Your task to perform on an android device: toggle airplane mode Image 0: 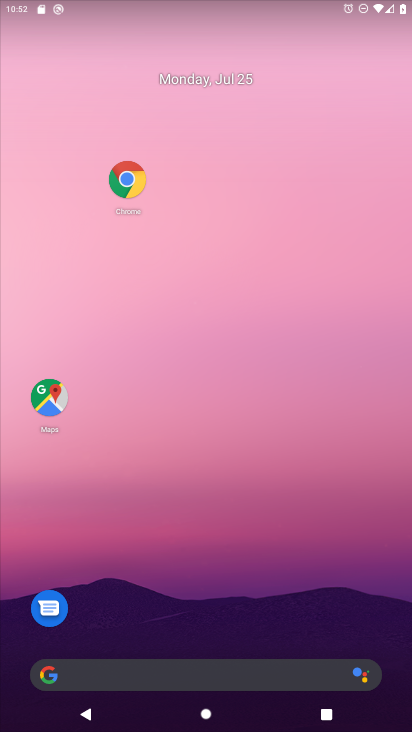
Step 0: drag from (154, 703) to (41, 722)
Your task to perform on an android device: toggle airplane mode Image 1: 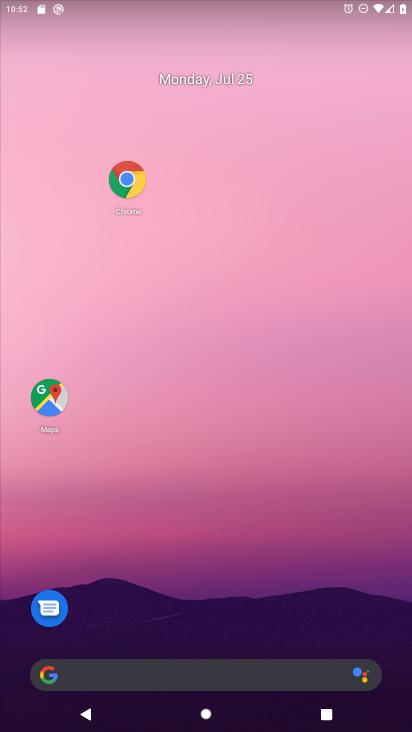
Step 1: drag from (141, 697) to (185, 94)
Your task to perform on an android device: toggle airplane mode Image 2: 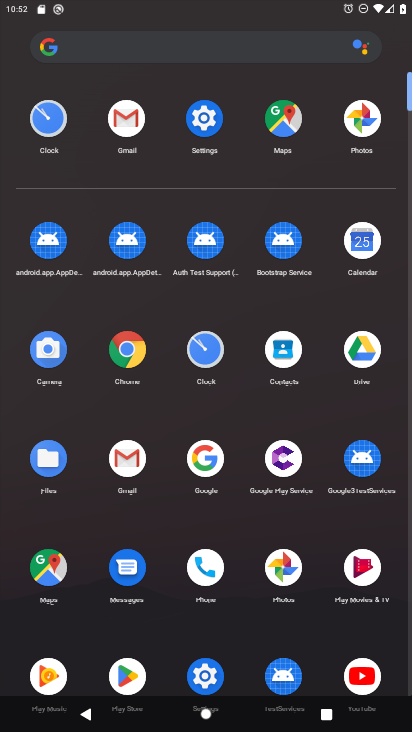
Step 2: click (198, 129)
Your task to perform on an android device: toggle airplane mode Image 3: 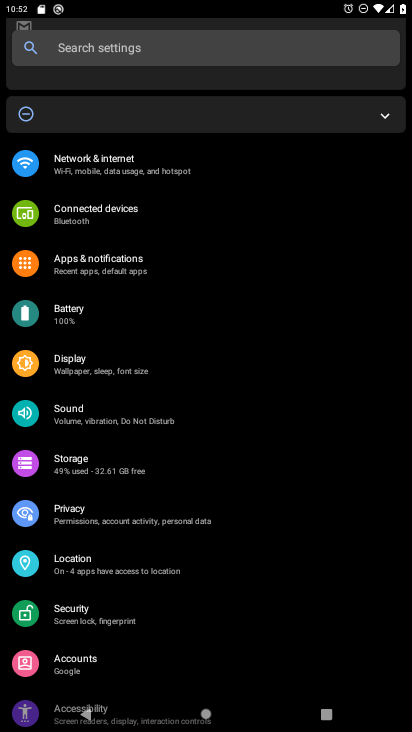
Step 3: click (198, 172)
Your task to perform on an android device: toggle airplane mode Image 4: 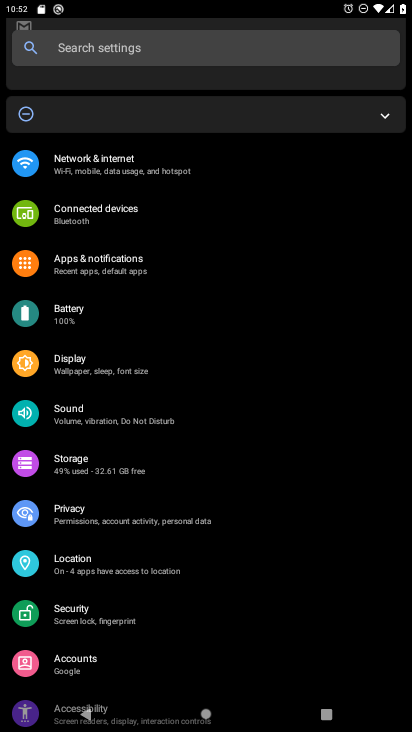
Step 4: click (198, 172)
Your task to perform on an android device: toggle airplane mode Image 5: 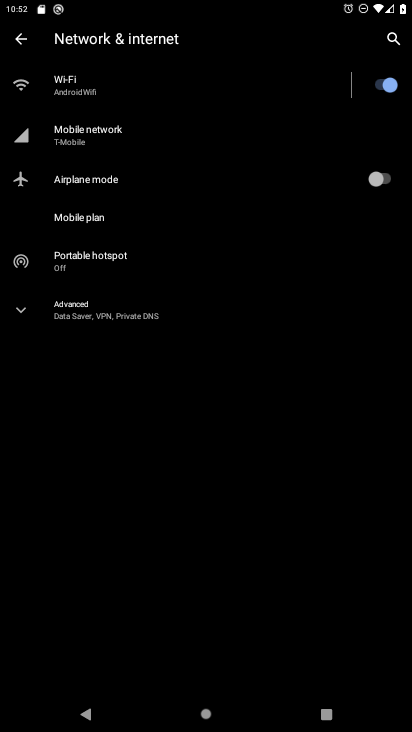
Step 5: click (373, 172)
Your task to perform on an android device: toggle airplane mode Image 6: 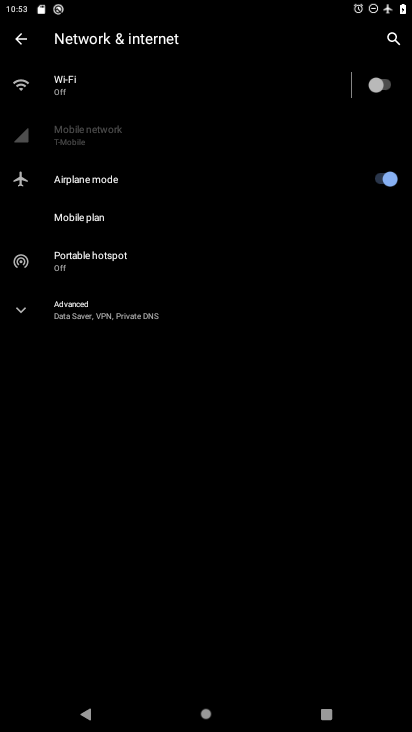
Step 6: task complete